Your task to perform on an android device: toggle wifi Image 0: 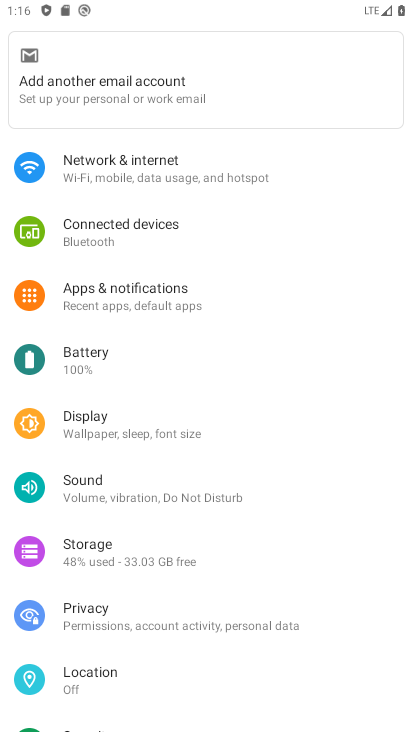
Step 0: click (140, 154)
Your task to perform on an android device: toggle wifi Image 1: 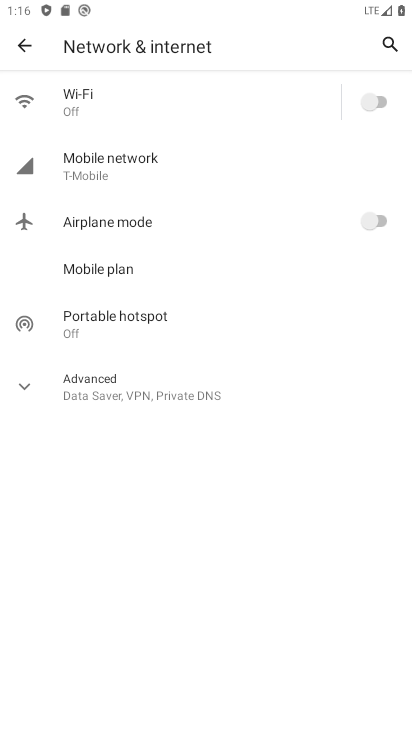
Step 1: click (235, 109)
Your task to perform on an android device: toggle wifi Image 2: 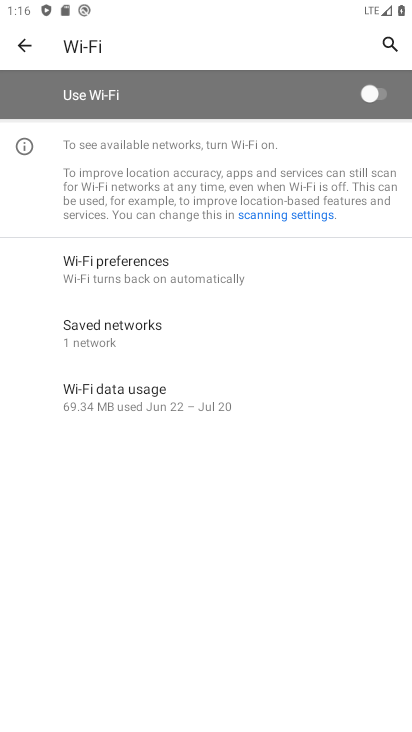
Step 2: click (358, 96)
Your task to perform on an android device: toggle wifi Image 3: 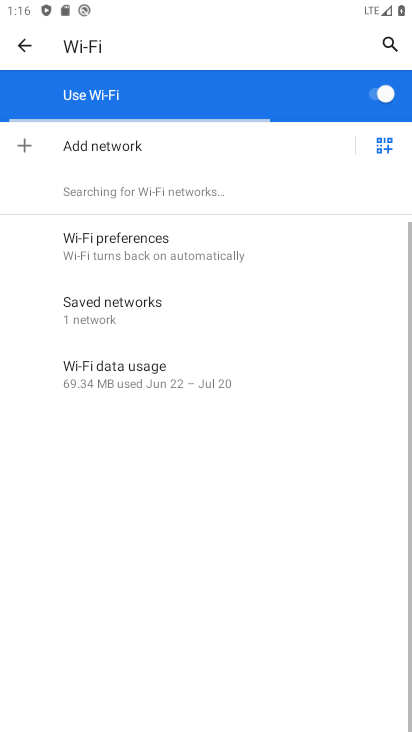
Step 3: task complete